Your task to perform on an android device: Open battery settings Image 0: 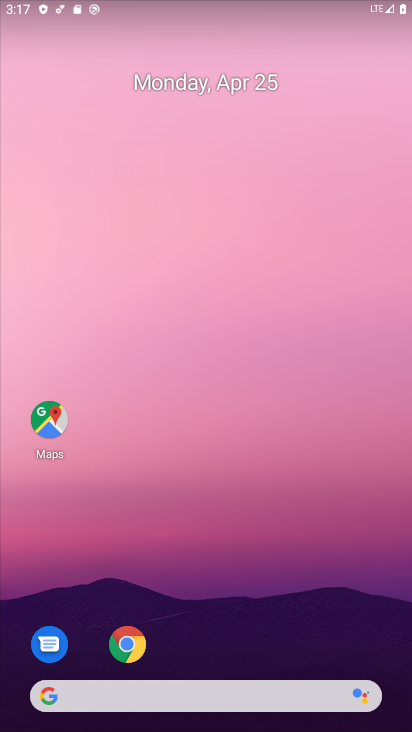
Step 0: drag from (243, 624) to (191, 74)
Your task to perform on an android device: Open battery settings Image 1: 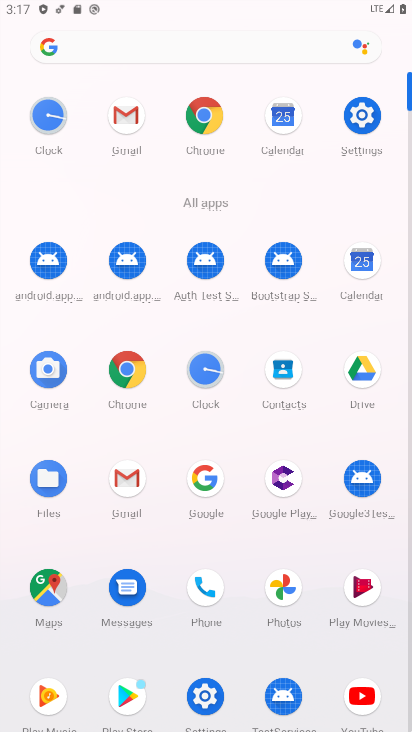
Step 1: click (371, 125)
Your task to perform on an android device: Open battery settings Image 2: 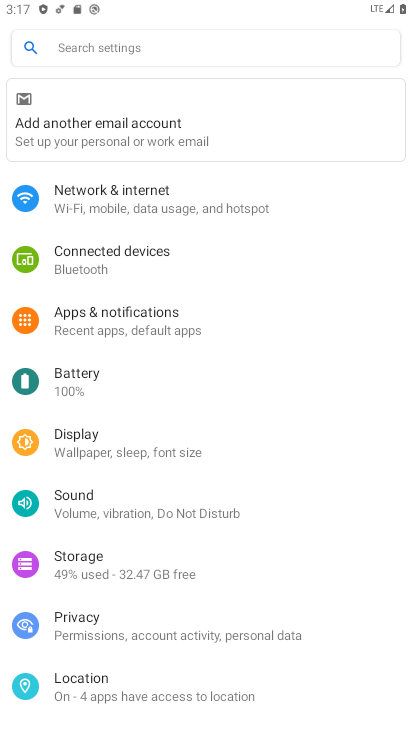
Step 2: click (119, 374)
Your task to perform on an android device: Open battery settings Image 3: 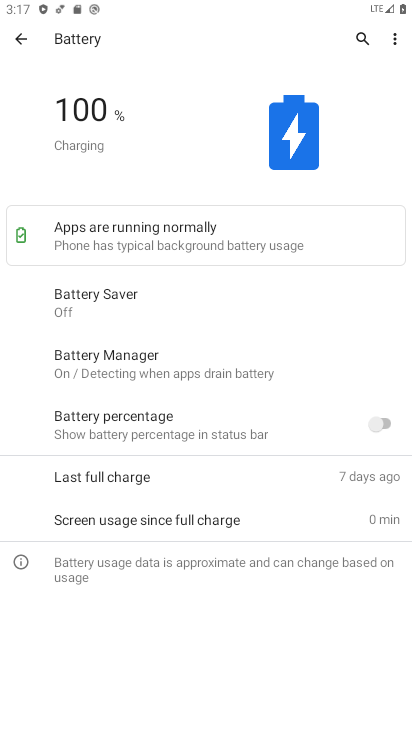
Step 3: task complete